Your task to perform on an android device: What's the weather today? Image 0: 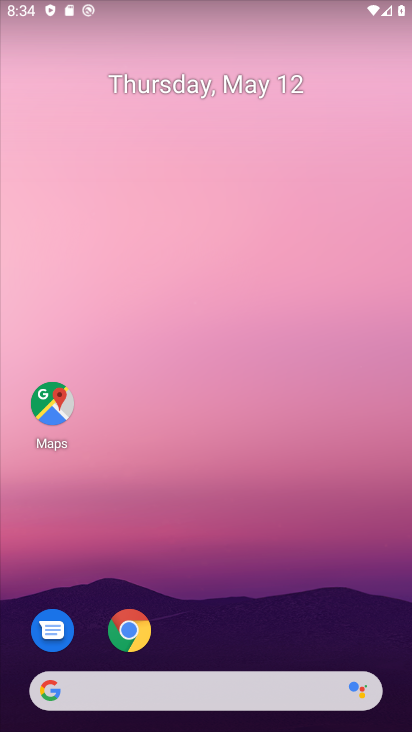
Step 0: drag from (9, 171) to (411, 177)
Your task to perform on an android device: What's the weather today? Image 1: 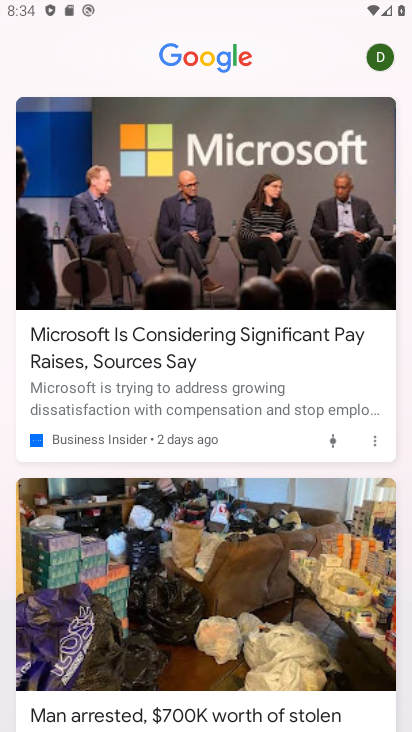
Step 1: drag from (383, 557) to (10, 529)
Your task to perform on an android device: What's the weather today? Image 2: 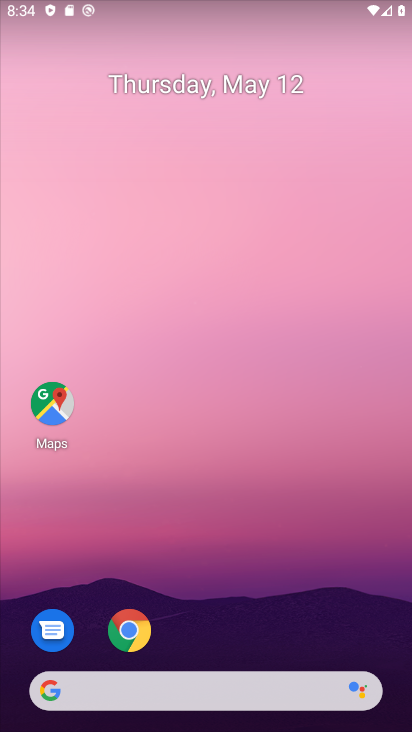
Step 2: click (237, 691)
Your task to perform on an android device: What's the weather today? Image 3: 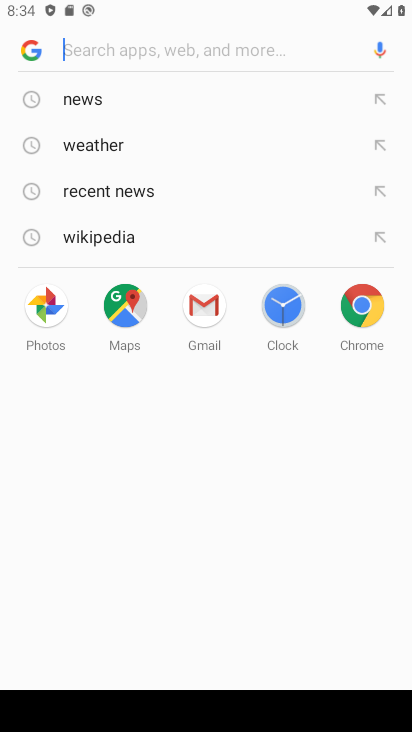
Step 3: type "weather today"
Your task to perform on an android device: What's the weather today? Image 4: 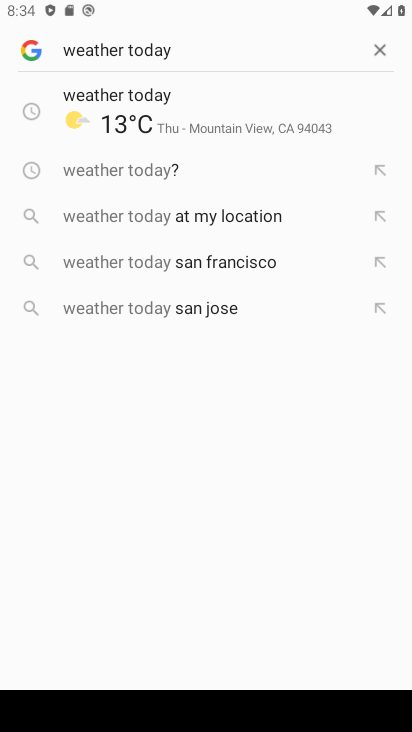
Step 4: click (216, 118)
Your task to perform on an android device: What's the weather today? Image 5: 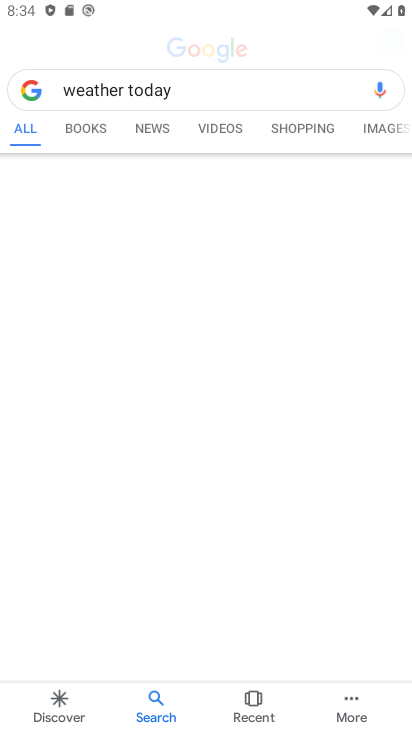
Step 5: task complete